Your task to perform on an android device: Go to notification settings Image 0: 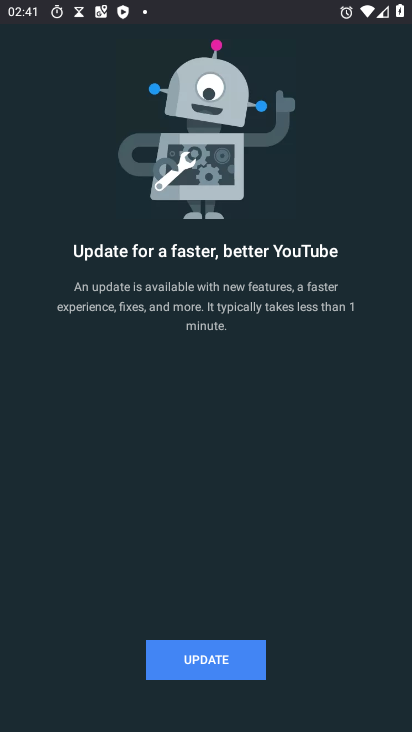
Step 0: press home button
Your task to perform on an android device: Go to notification settings Image 1: 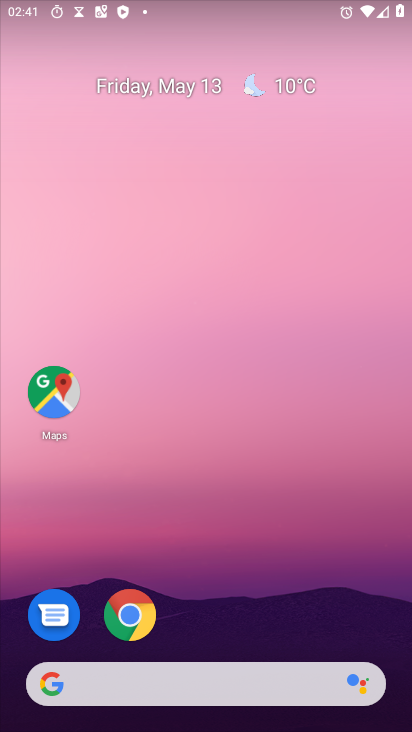
Step 1: drag from (178, 588) to (112, 134)
Your task to perform on an android device: Go to notification settings Image 2: 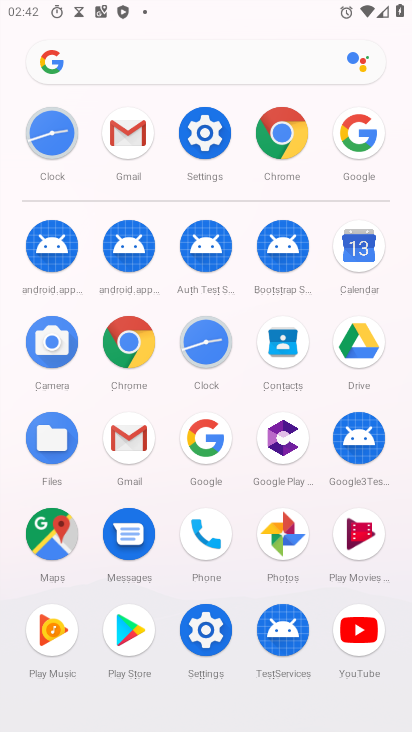
Step 2: click (210, 143)
Your task to perform on an android device: Go to notification settings Image 3: 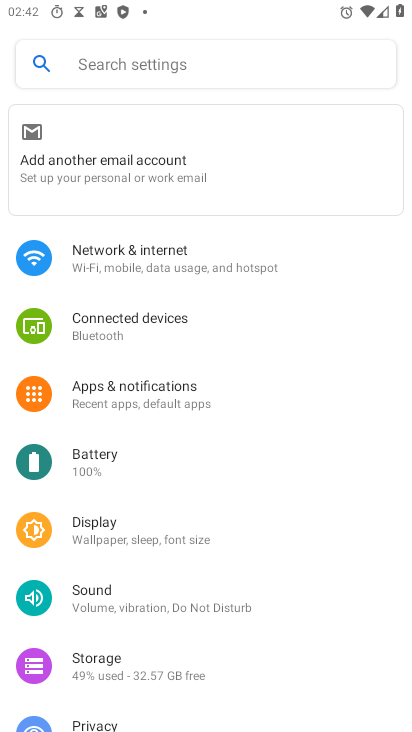
Step 3: click (183, 393)
Your task to perform on an android device: Go to notification settings Image 4: 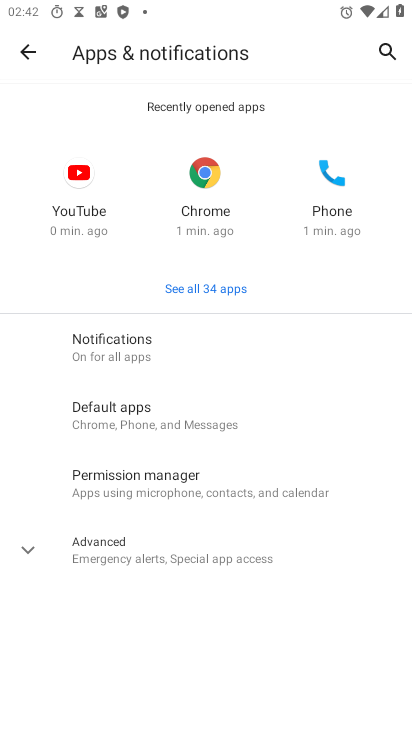
Step 4: click (132, 348)
Your task to perform on an android device: Go to notification settings Image 5: 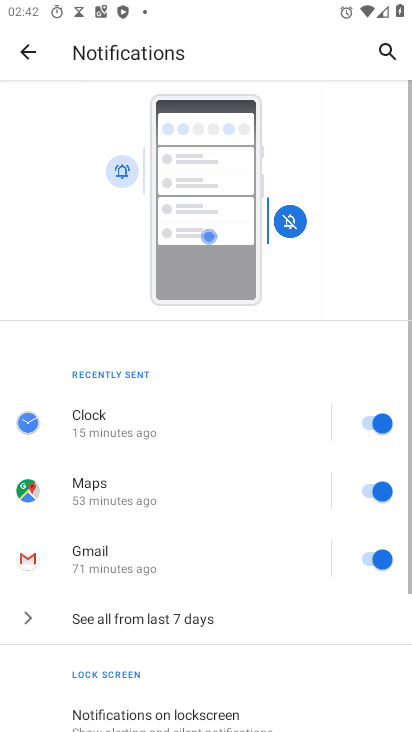
Step 5: drag from (109, 551) to (86, 139)
Your task to perform on an android device: Go to notification settings Image 6: 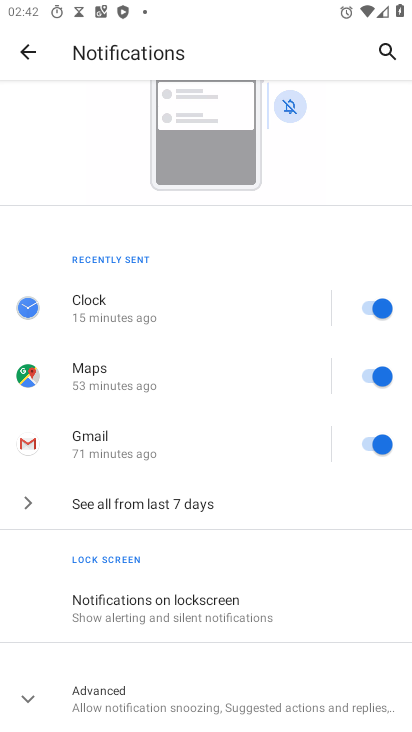
Step 6: click (162, 708)
Your task to perform on an android device: Go to notification settings Image 7: 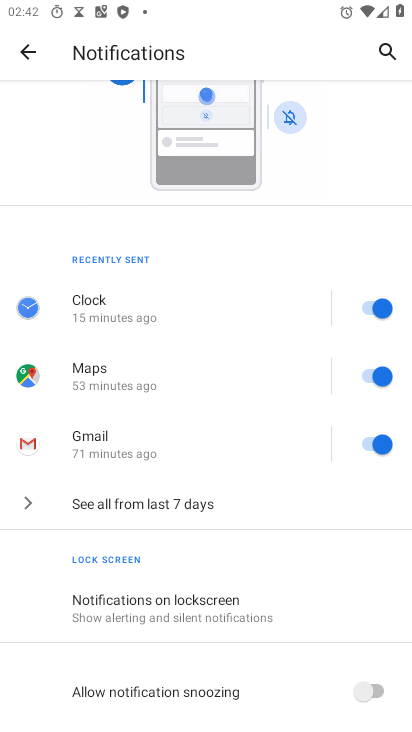
Step 7: drag from (246, 623) to (177, 223)
Your task to perform on an android device: Go to notification settings Image 8: 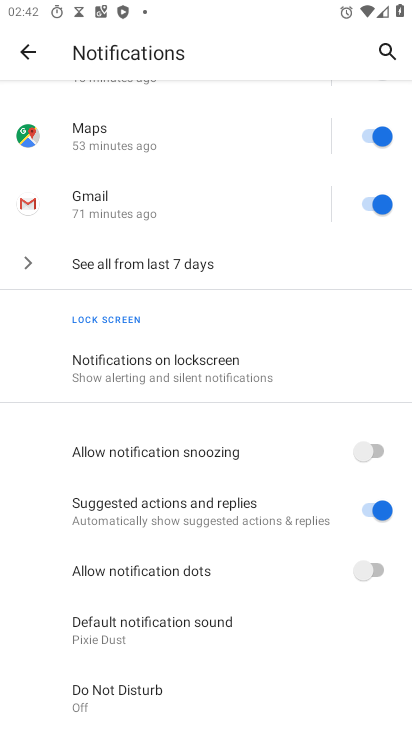
Step 8: click (143, 640)
Your task to perform on an android device: Go to notification settings Image 9: 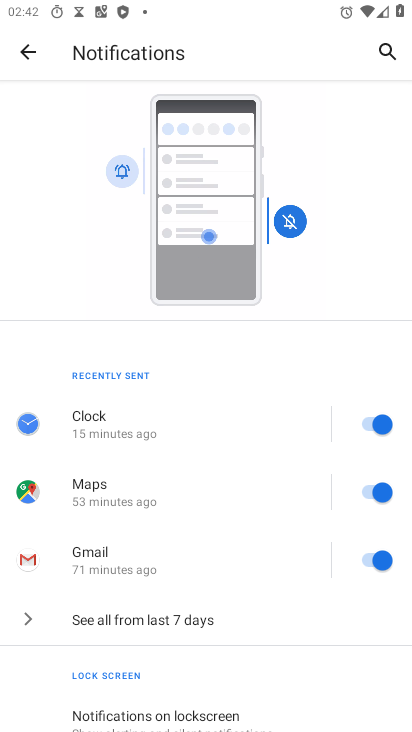
Step 9: task complete